Your task to perform on an android device: add a contact Image 0: 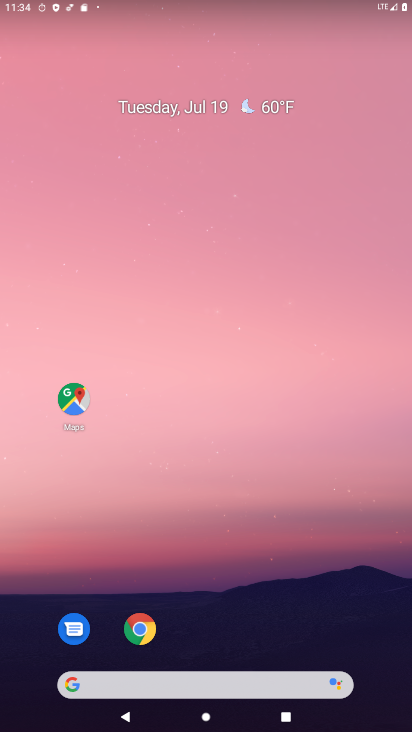
Step 0: drag from (368, 596) to (325, 112)
Your task to perform on an android device: add a contact Image 1: 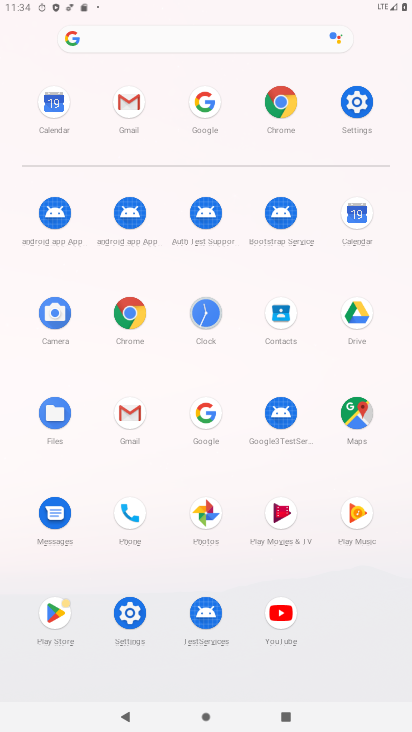
Step 1: click (290, 322)
Your task to perform on an android device: add a contact Image 2: 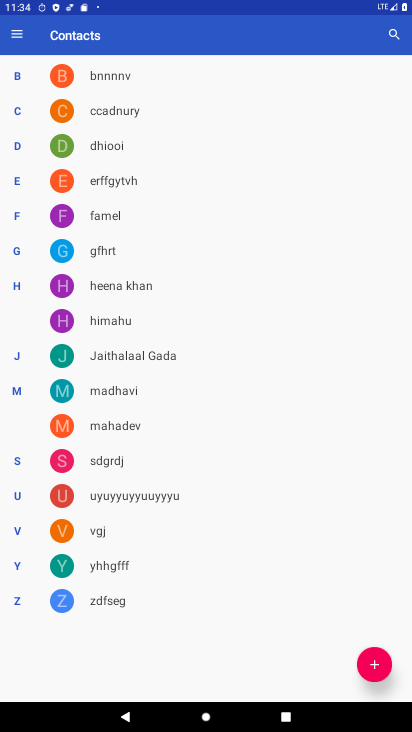
Step 2: click (374, 663)
Your task to perform on an android device: add a contact Image 3: 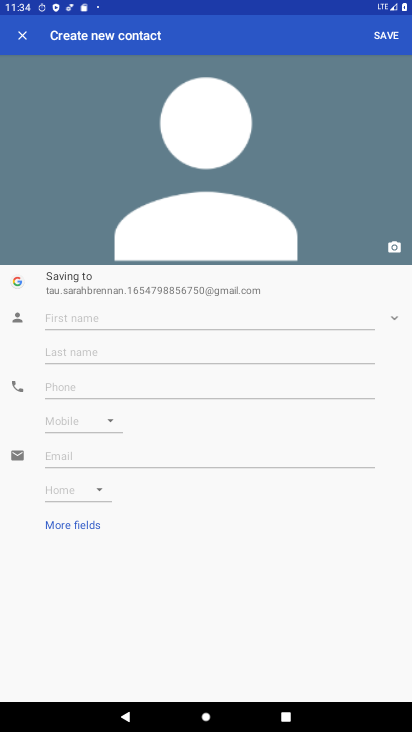
Step 3: click (272, 323)
Your task to perform on an android device: add a contact Image 4: 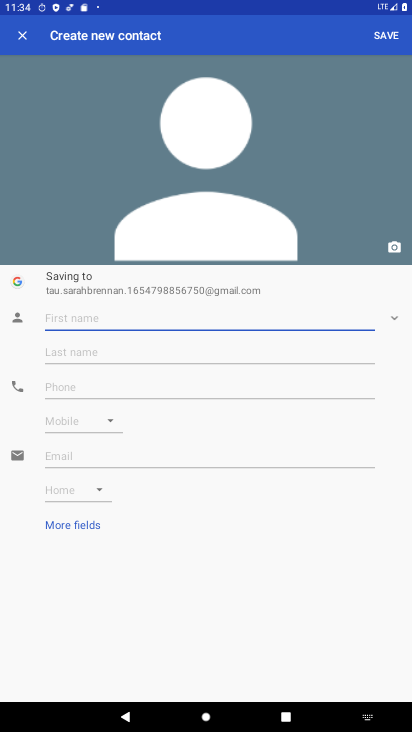
Step 4: type "gold"
Your task to perform on an android device: add a contact Image 5: 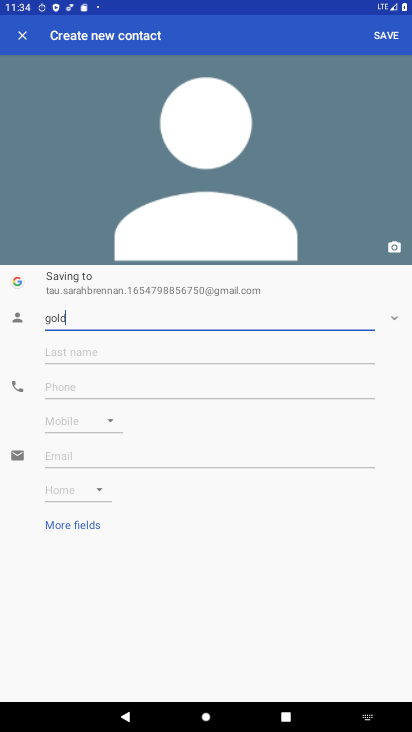
Step 5: click (393, 34)
Your task to perform on an android device: add a contact Image 6: 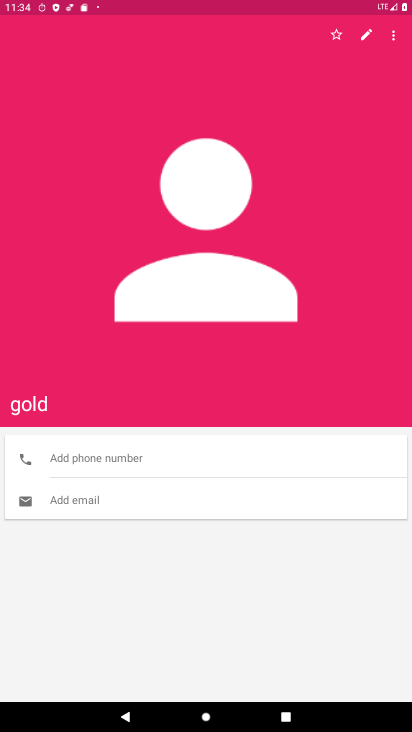
Step 6: task complete